Your task to perform on an android device: change notifications settings Image 0: 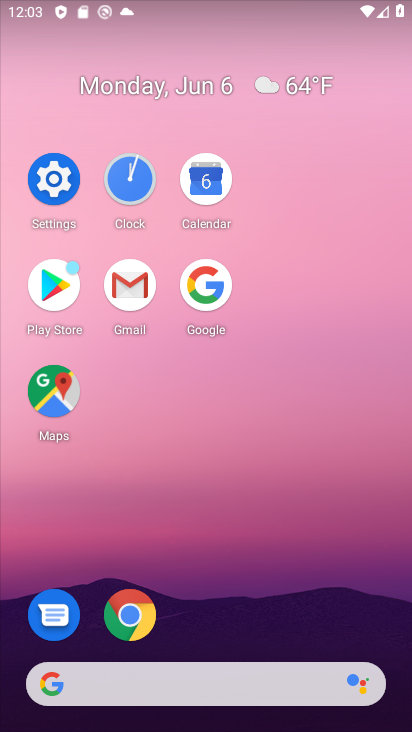
Step 0: click (47, 187)
Your task to perform on an android device: change notifications settings Image 1: 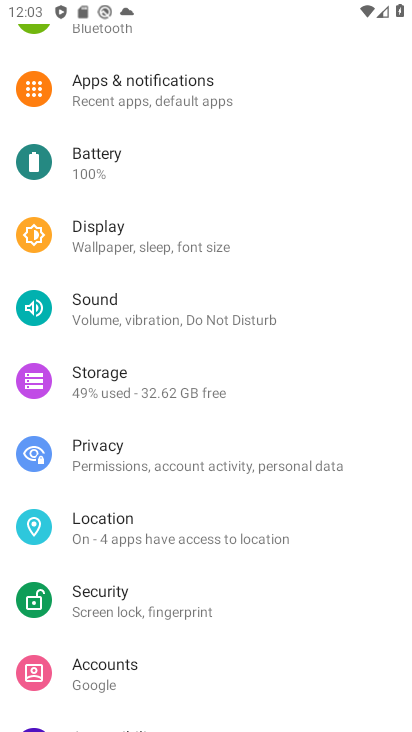
Step 1: click (205, 68)
Your task to perform on an android device: change notifications settings Image 2: 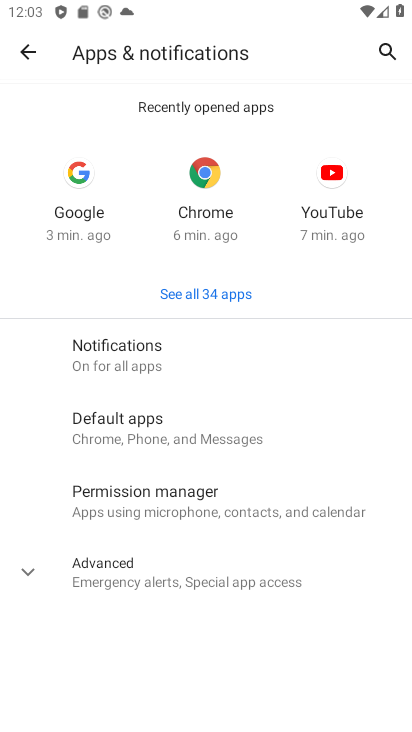
Step 2: click (174, 321)
Your task to perform on an android device: change notifications settings Image 3: 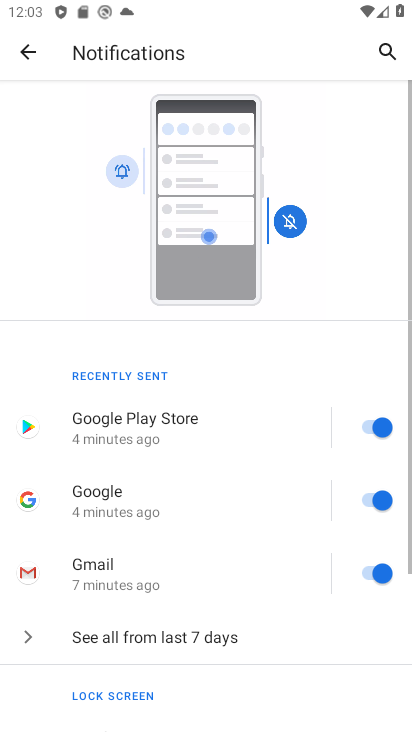
Step 3: drag from (254, 603) to (322, 142)
Your task to perform on an android device: change notifications settings Image 4: 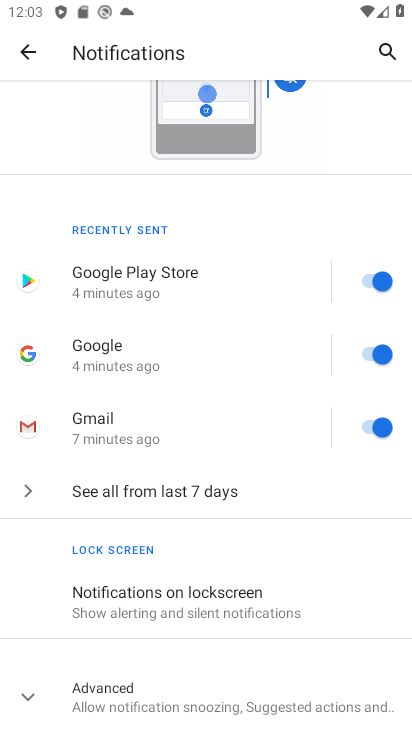
Step 4: click (217, 677)
Your task to perform on an android device: change notifications settings Image 5: 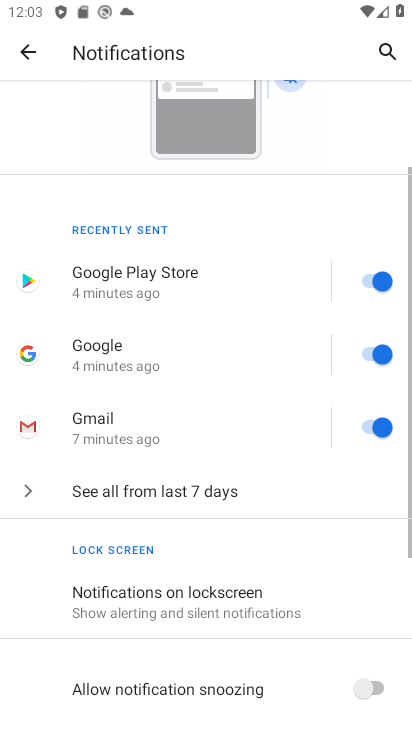
Step 5: drag from (226, 648) to (286, 135)
Your task to perform on an android device: change notifications settings Image 6: 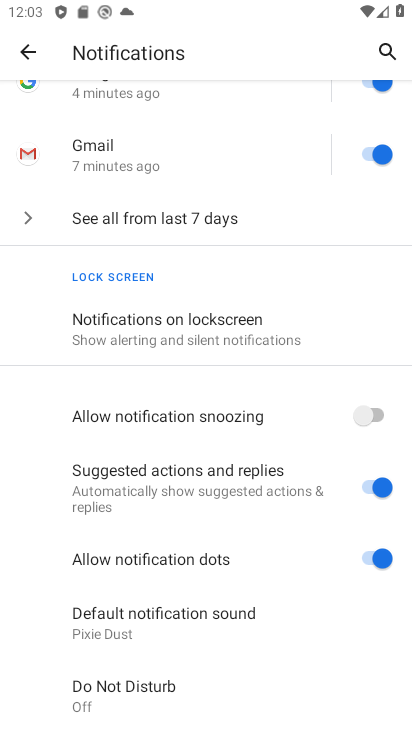
Step 6: click (359, 417)
Your task to perform on an android device: change notifications settings Image 7: 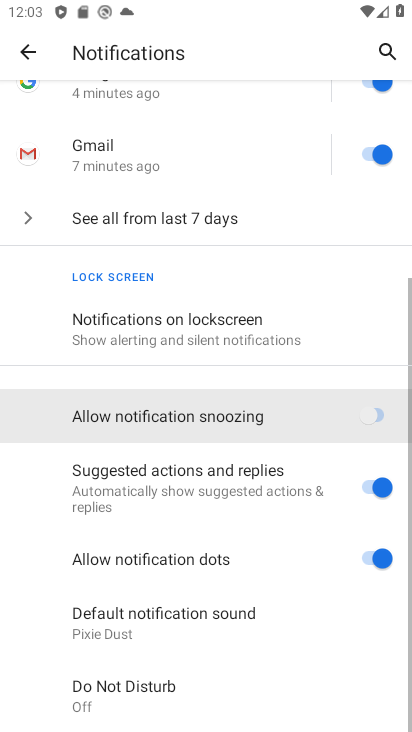
Step 7: click (388, 495)
Your task to perform on an android device: change notifications settings Image 8: 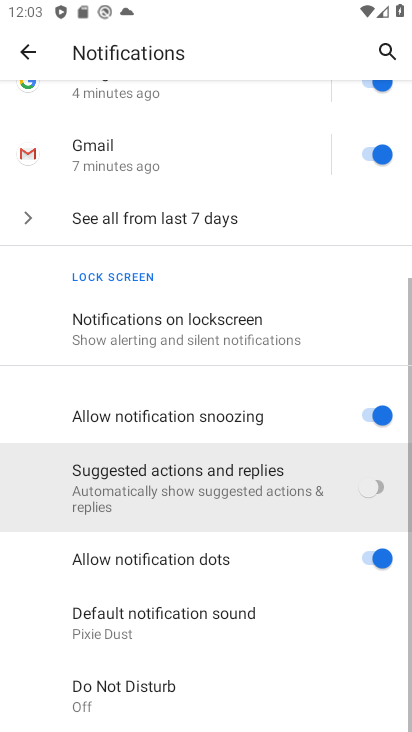
Step 8: click (374, 564)
Your task to perform on an android device: change notifications settings Image 9: 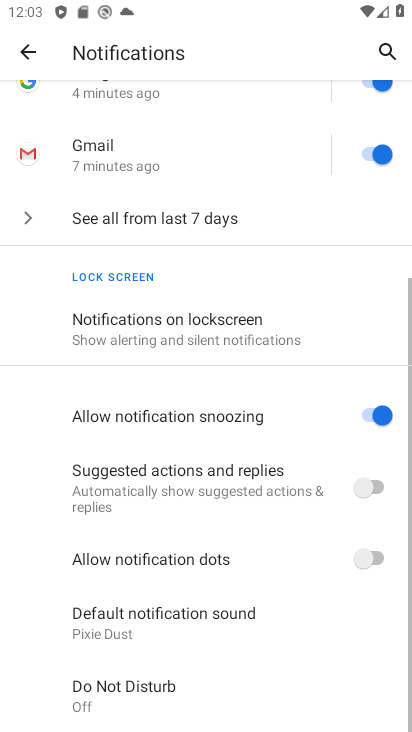
Step 9: task complete